Your task to perform on an android device: Check the weather Image 0: 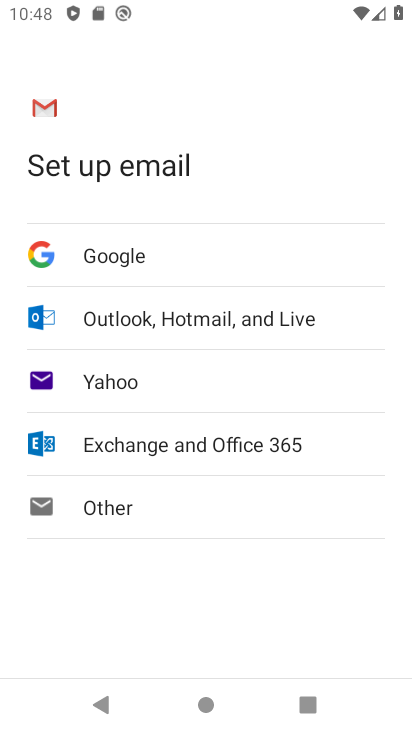
Step 0: press home button
Your task to perform on an android device: Check the weather Image 1: 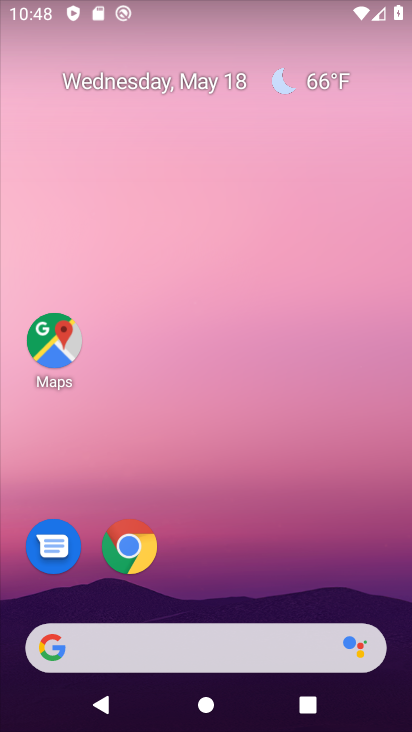
Step 1: click (279, 79)
Your task to perform on an android device: Check the weather Image 2: 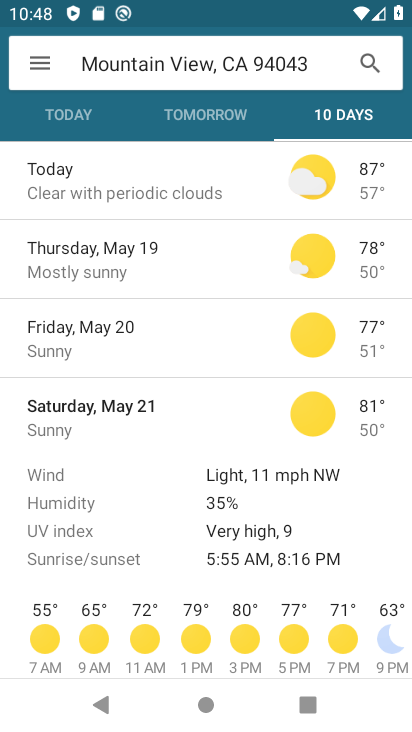
Step 2: click (48, 114)
Your task to perform on an android device: Check the weather Image 3: 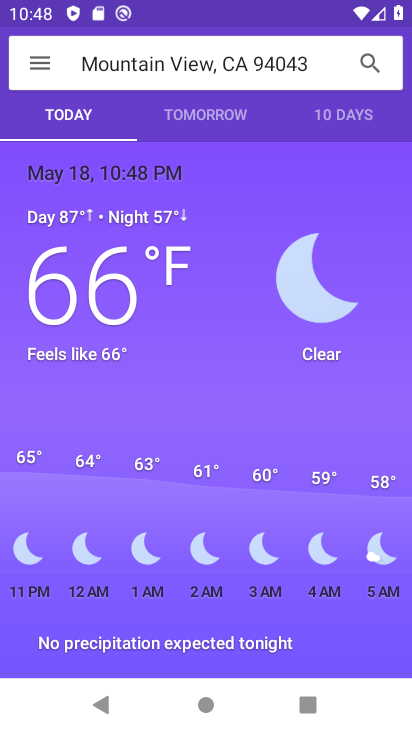
Step 3: task complete